Your task to perform on an android device: turn off notifications in google photos Image 0: 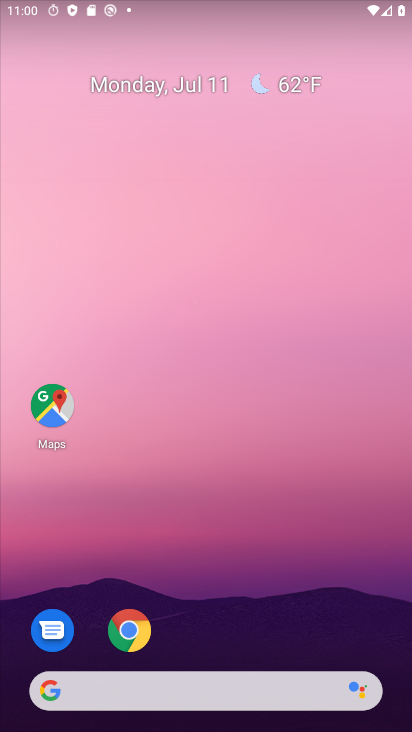
Step 0: drag from (300, 696) to (289, 0)
Your task to perform on an android device: turn off notifications in google photos Image 1: 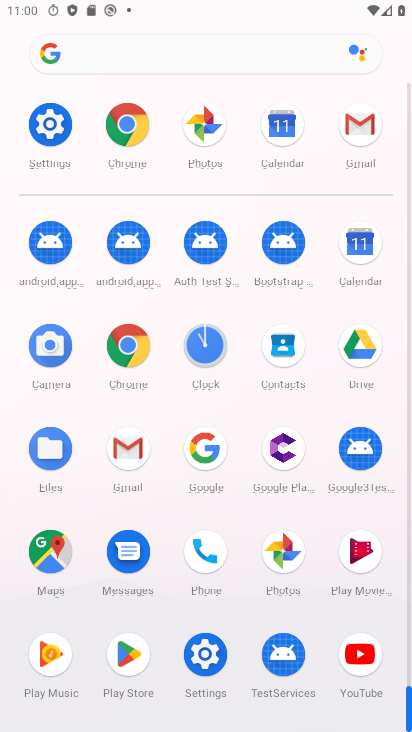
Step 1: click (290, 556)
Your task to perform on an android device: turn off notifications in google photos Image 2: 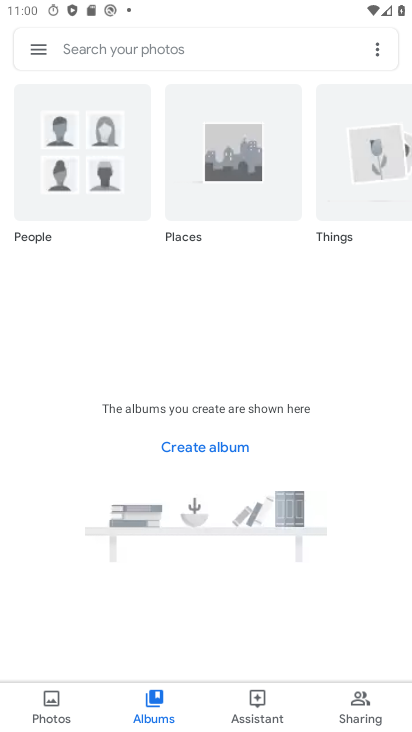
Step 2: click (46, 49)
Your task to perform on an android device: turn off notifications in google photos Image 3: 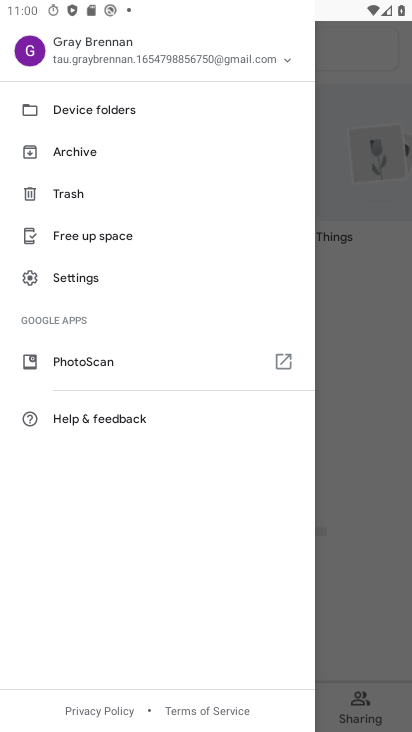
Step 3: click (96, 274)
Your task to perform on an android device: turn off notifications in google photos Image 4: 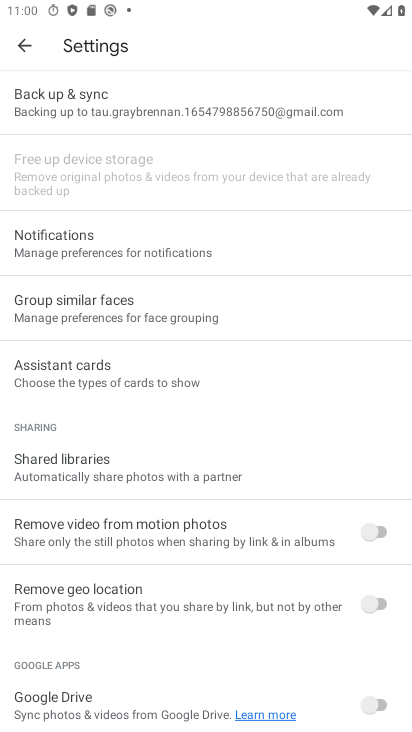
Step 4: click (117, 249)
Your task to perform on an android device: turn off notifications in google photos Image 5: 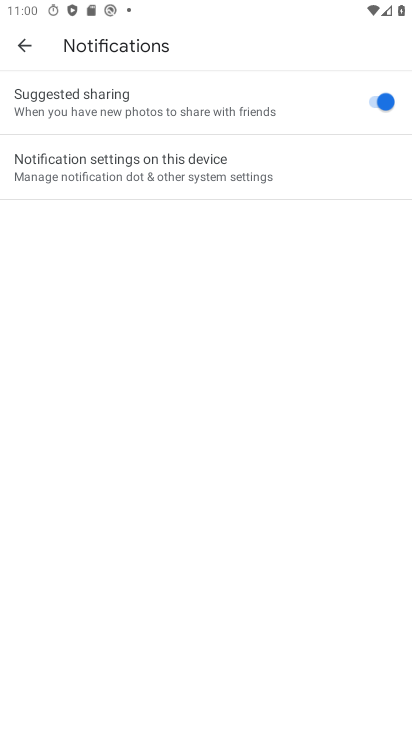
Step 5: click (368, 95)
Your task to perform on an android device: turn off notifications in google photos Image 6: 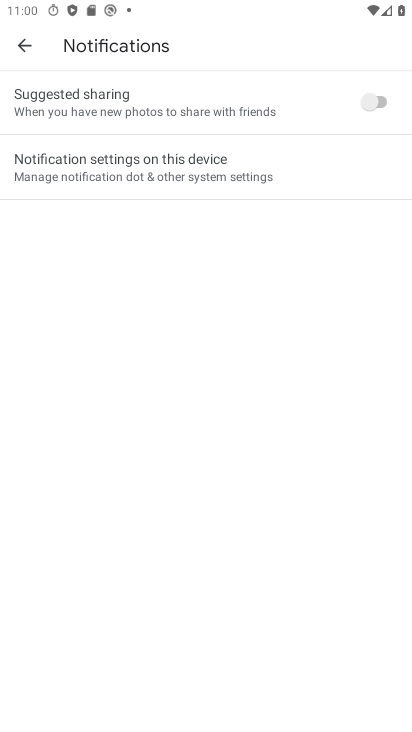
Step 6: task complete